Your task to perform on an android device: Open Chrome and go to settings Image 0: 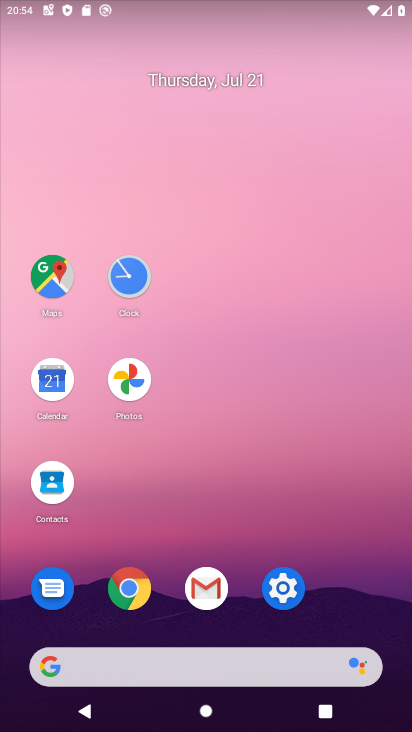
Step 0: click (129, 589)
Your task to perform on an android device: Open Chrome and go to settings Image 1: 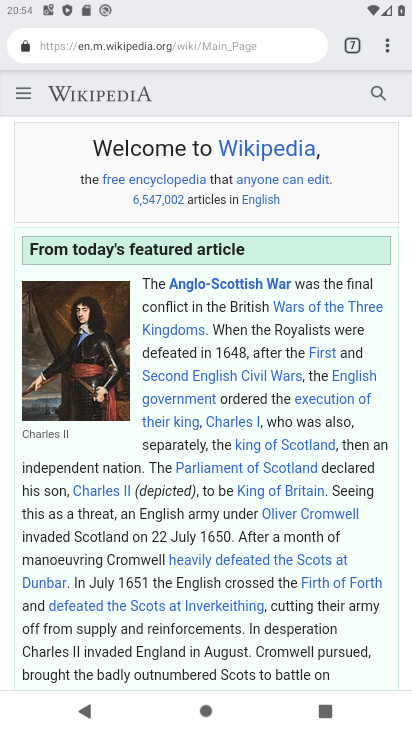
Step 1: click (389, 40)
Your task to perform on an android device: Open Chrome and go to settings Image 2: 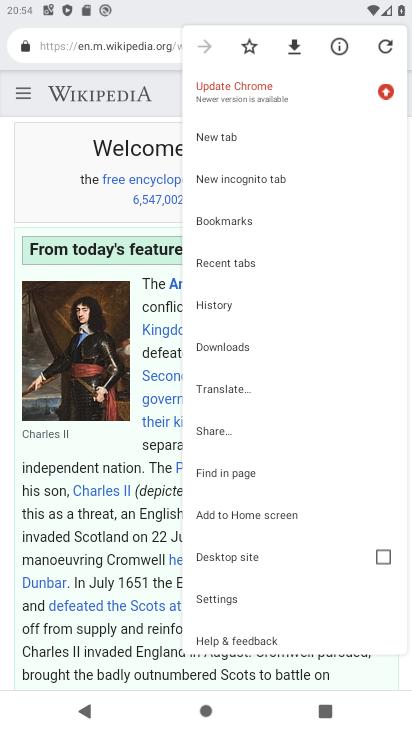
Step 2: click (226, 595)
Your task to perform on an android device: Open Chrome and go to settings Image 3: 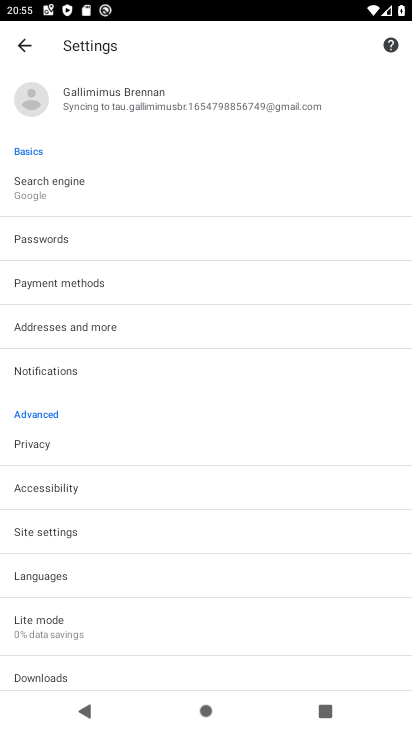
Step 3: task complete